Your task to perform on an android device: change notifications settings Image 0: 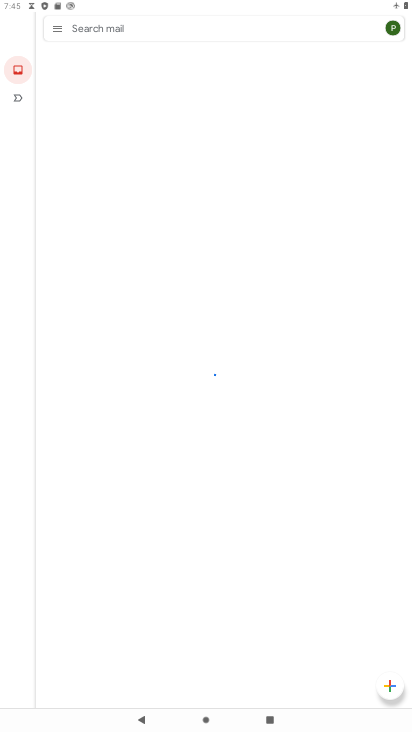
Step 0: press home button
Your task to perform on an android device: change notifications settings Image 1: 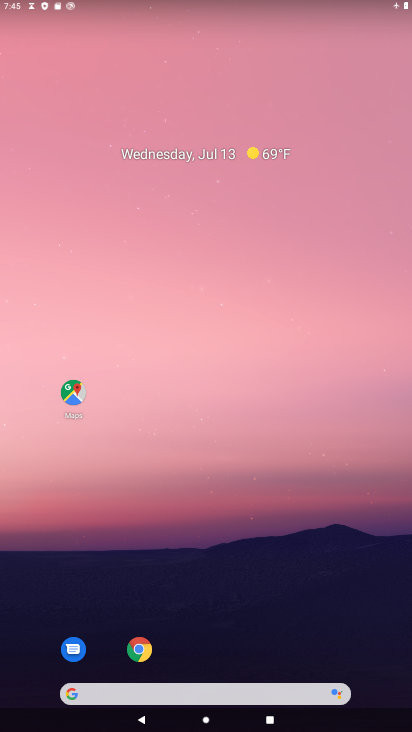
Step 1: drag from (195, 681) to (173, 471)
Your task to perform on an android device: change notifications settings Image 2: 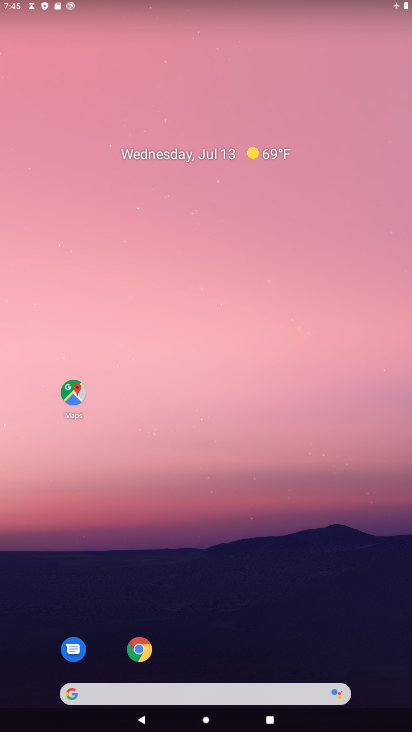
Step 2: drag from (164, 680) to (255, 292)
Your task to perform on an android device: change notifications settings Image 3: 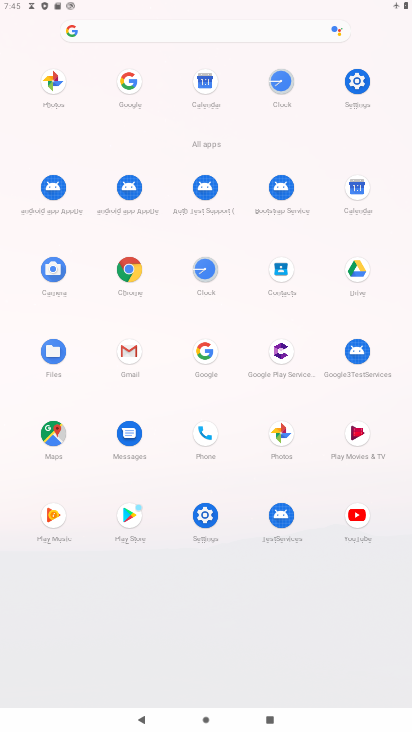
Step 3: click (353, 80)
Your task to perform on an android device: change notifications settings Image 4: 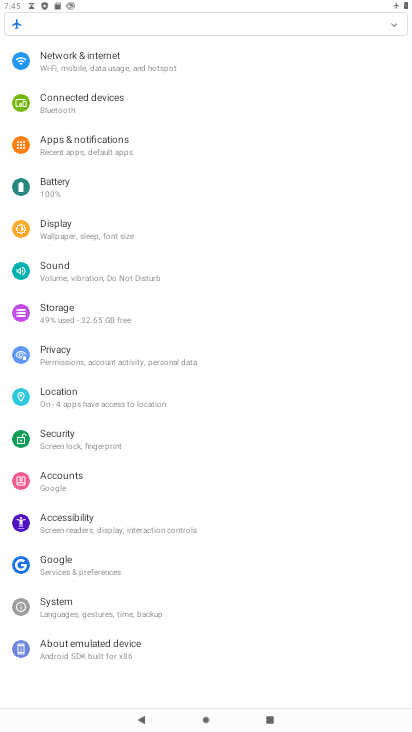
Step 4: click (79, 147)
Your task to perform on an android device: change notifications settings Image 5: 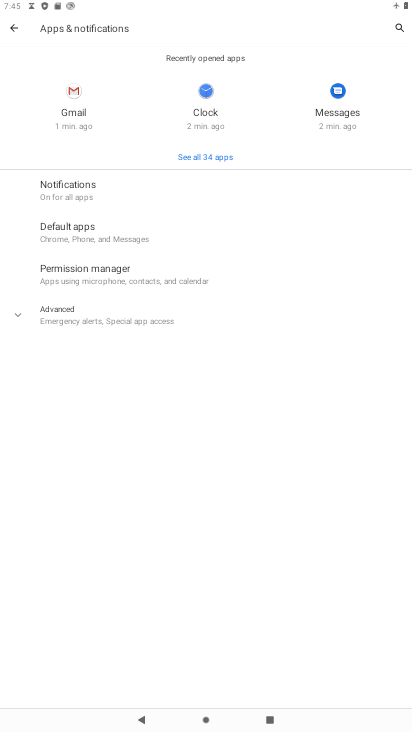
Step 5: click (118, 314)
Your task to perform on an android device: change notifications settings Image 6: 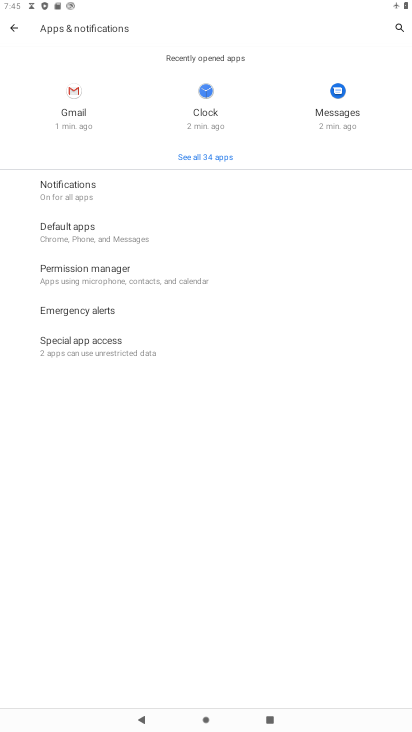
Step 6: click (73, 189)
Your task to perform on an android device: change notifications settings Image 7: 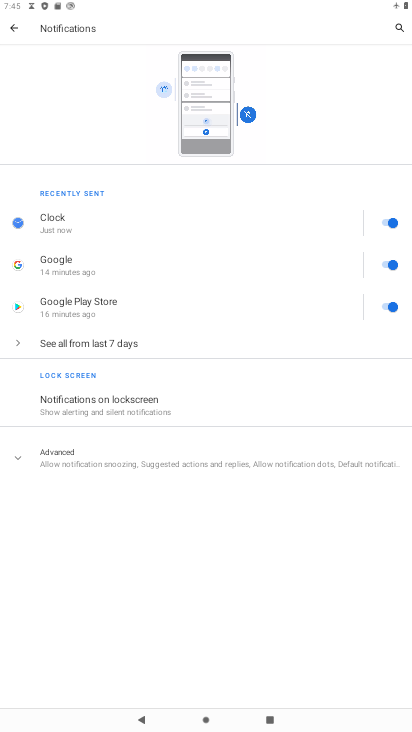
Step 7: click (70, 457)
Your task to perform on an android device: change notifications settings Image 8: 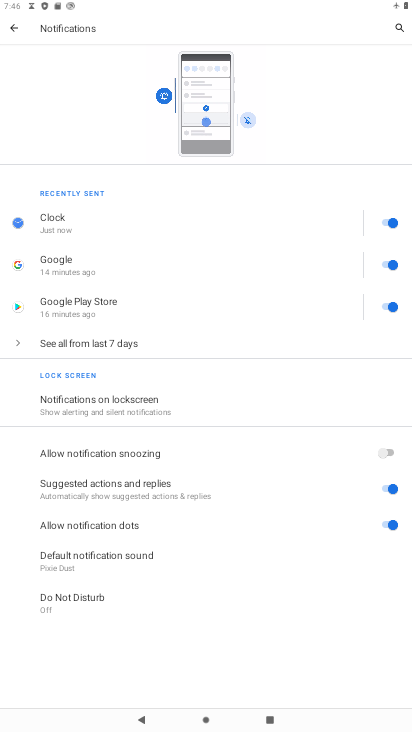
Step 8: click (74, 334)
Your task to perform on an android device: change notifications settings Image 9: 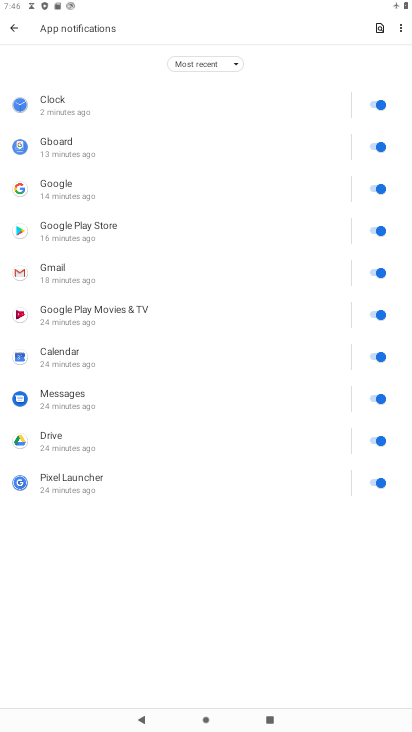
Step 9: click (375, 105)
Your task to perform on an android device: change notifications settings Image 10: 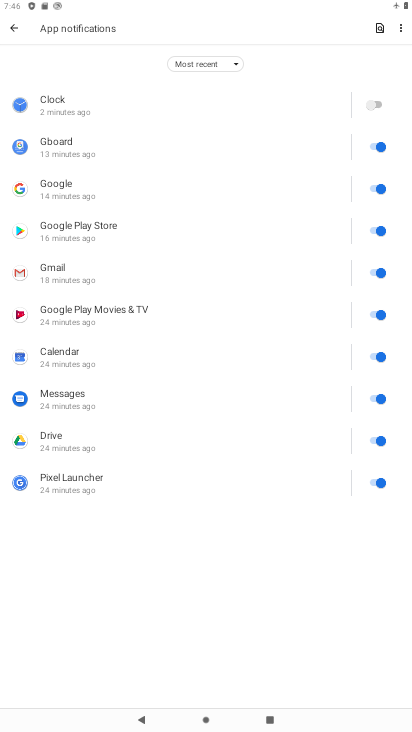
Step 10: click (376, 146)
Your task to perform on an android device: change notifications settings Image 11: 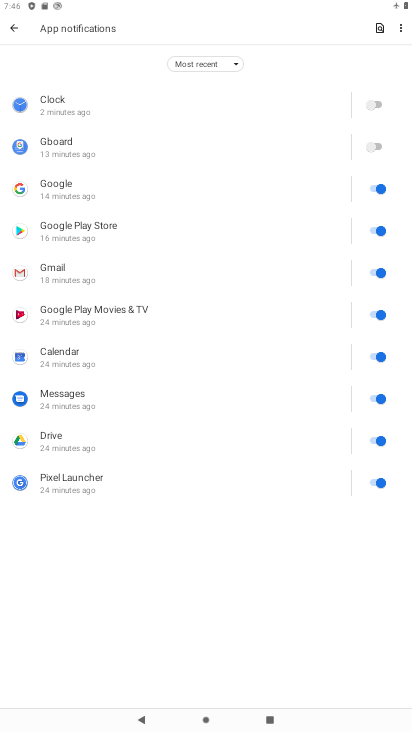
Step 11: click (373, 187)
Your task to perform on an android device: change notifications settings Image 12: 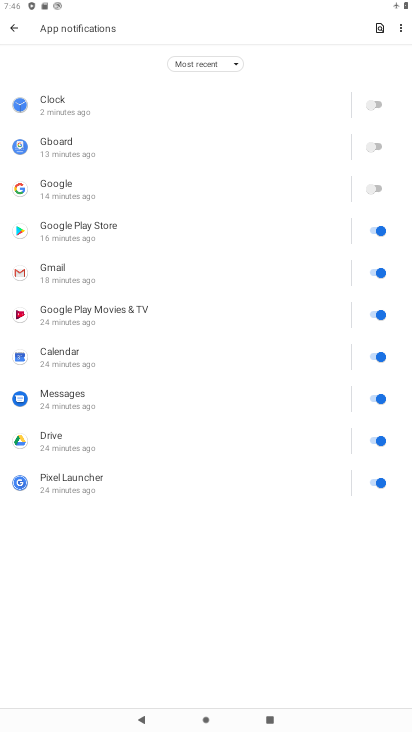
Step 12: click (376, 230)
Your task to perform on an android device: change notifications settings Image 13: 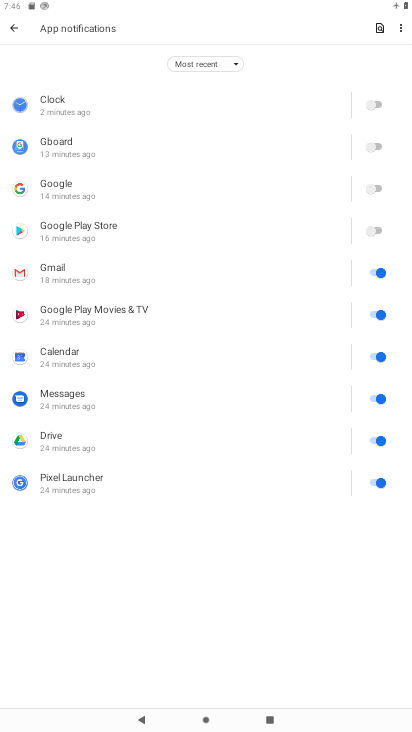
Step 13: click (373, 271)
Your task to perform on an android device: change notifications settings Image 14: 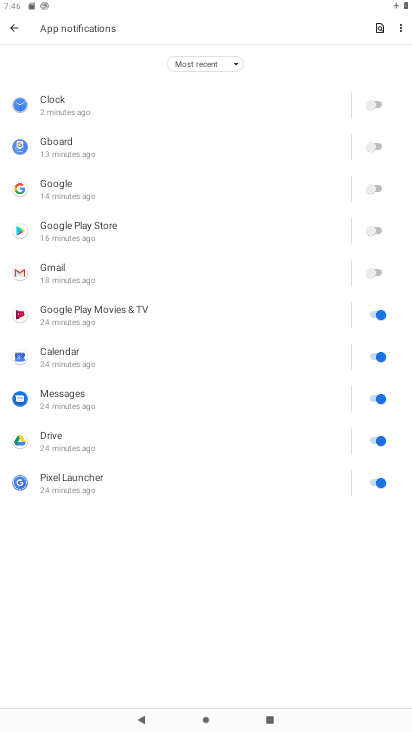
Step 14: click (377, 313)
Your task to perform on an android device: change notifications settings Image 15: 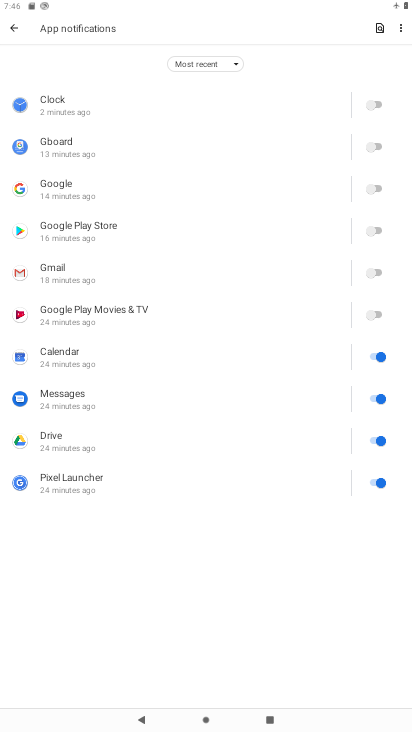
Step 15: click (382, 355)
Your task to perform on an android device: change notifications settings Image 16: 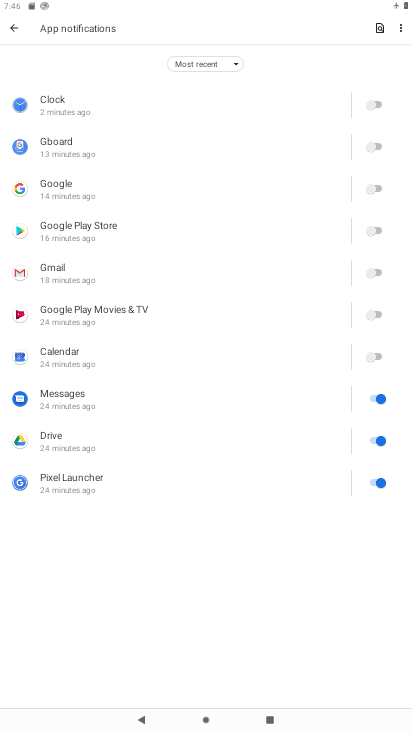
Step 16: click (372, 396)
Your task to perform on an android device: change notifications settings Image 17: 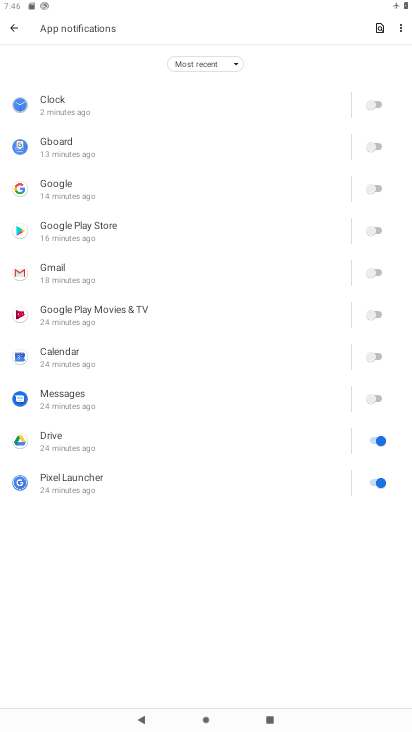
Step 17: click (380, 439)
Your task to perform on an android device: change notifications settings Image 18: 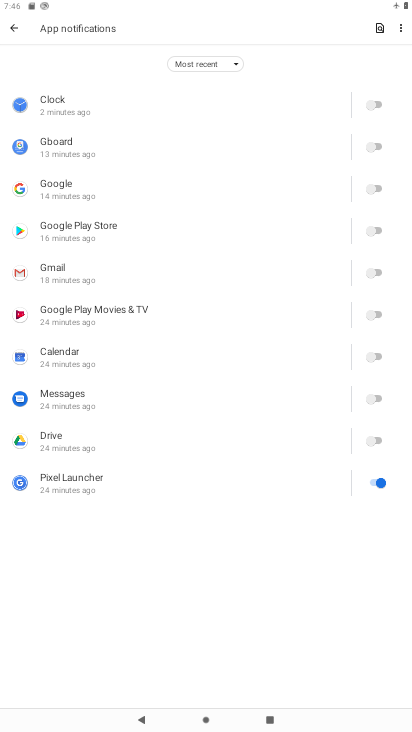
Step 18: click (373, 480)
Your task to perform on an android device: change notifications settings Image 19: 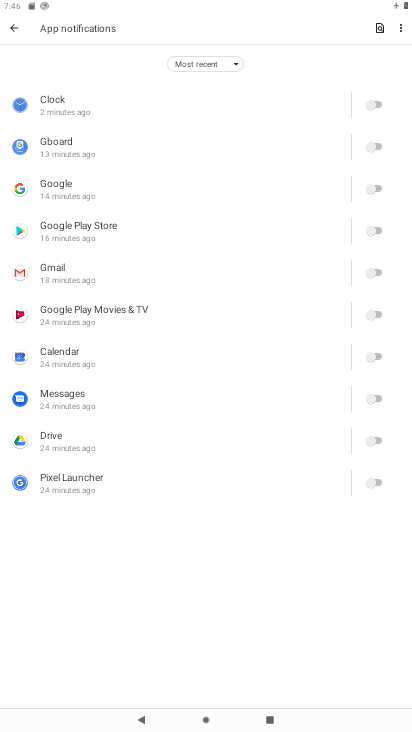
Step 19: task complete